Your task to perform on an android device: Go to sound settings Image 0: 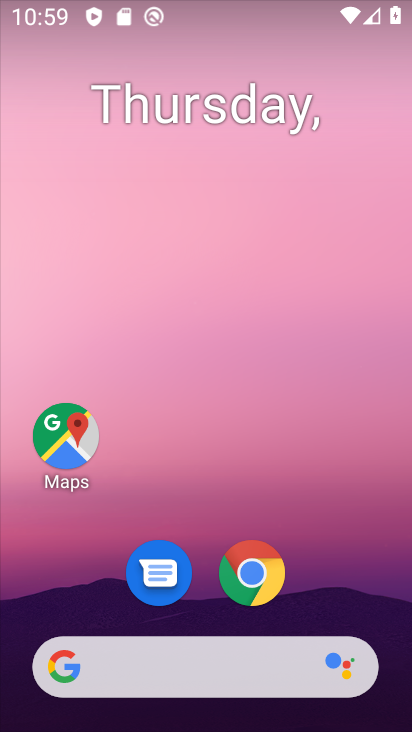
Step 0: drag from (215, 525) to (250, 131)
Your task to perform on an android device: Go to sound settings Image 1: 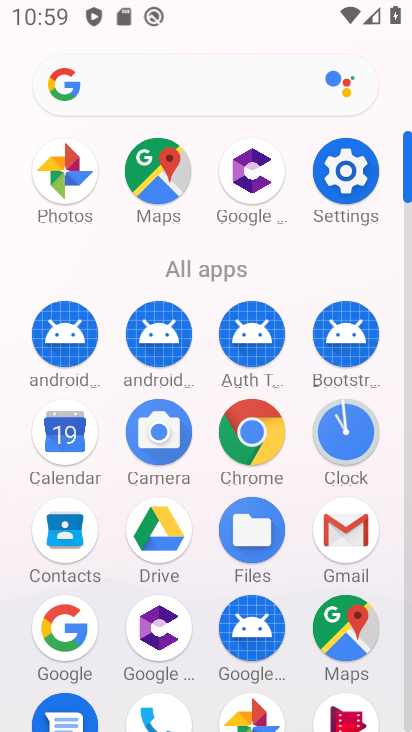
Step 1: click (335, 185)
Your task to perform on an android device: Go to sound settings Image 2: 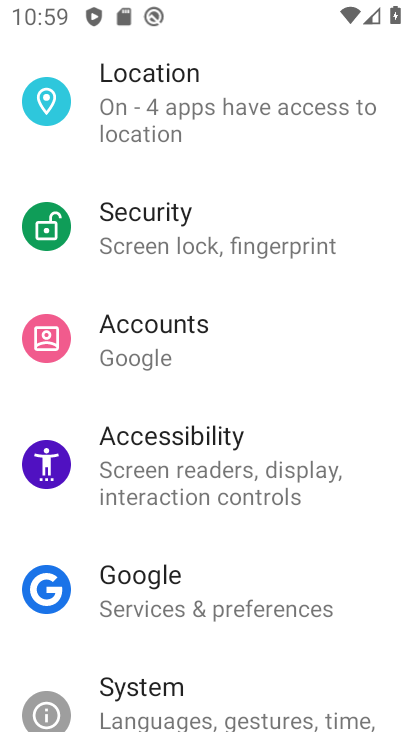
Step 2: drag from (164, 649) to (242, 230)
Your task to perform on an android device: Go to sound settings Image 3: 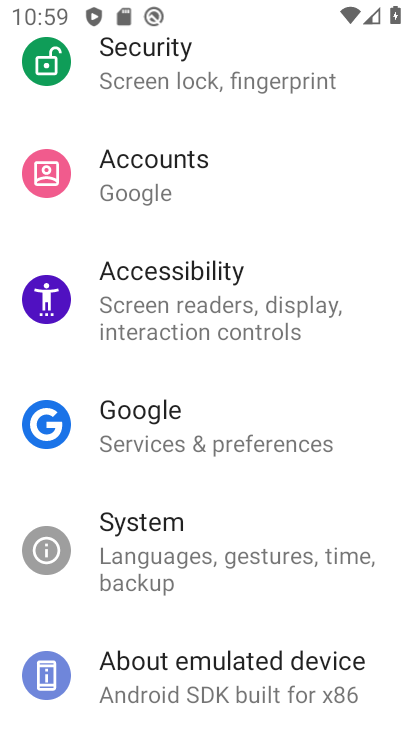
Step 3: click (245, 559)
Your task to perform on an android device: Go to sound settings Image 4: 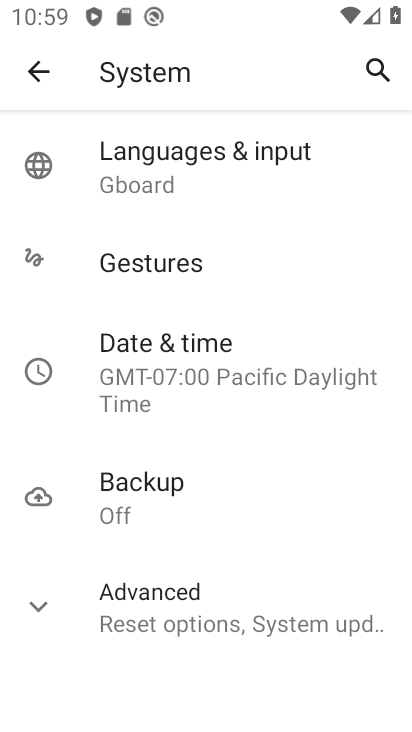
Step 4: click (47, 71)
Your task to perform on an android device: Go to sound settings Image 5: 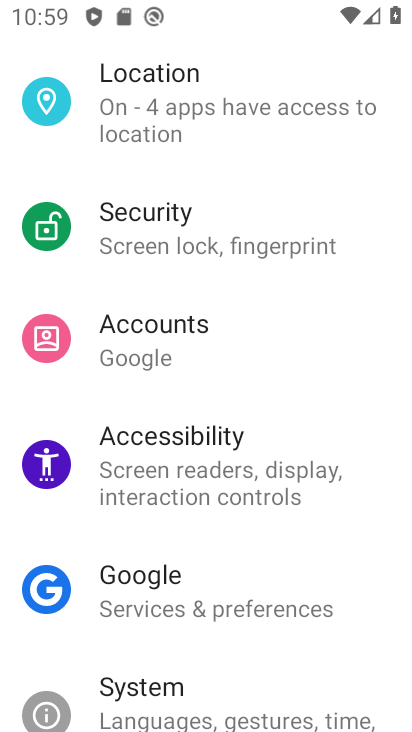
Step 5: drag from (197, 81) to (210, 603)
Your task to perform on an android device: Go to sound settings Image 6: 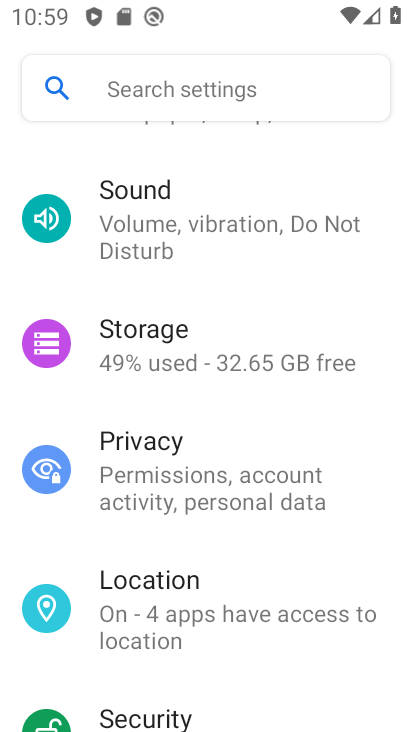
Step 6: click (192, 206)
Your task to perform on an android device: Go to sound settings Image 7: 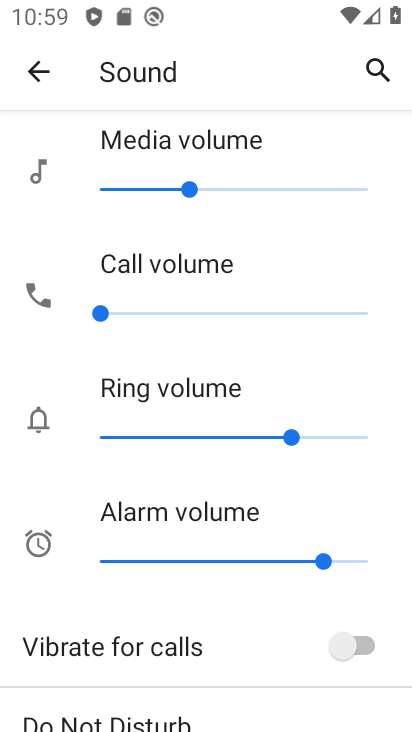
Step 7: drag from (158, 626) to (200, 281)
Your task to perform on an android device: Go to sound settings Image 8: 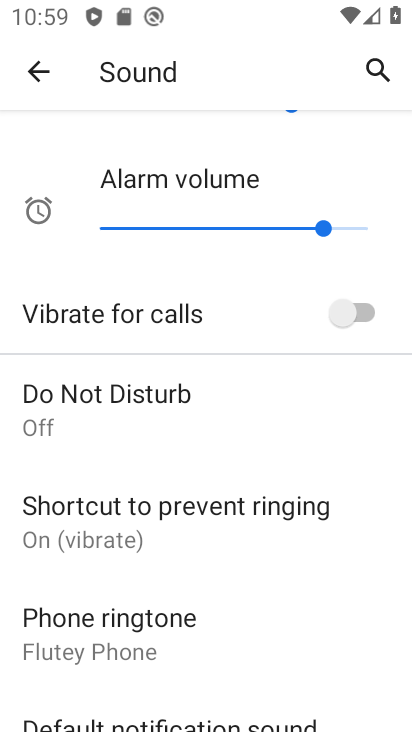
Step 8: drag from (198, 683) to (196, 295)
Your task to perform on an android device: Go to sound settings Image 9: 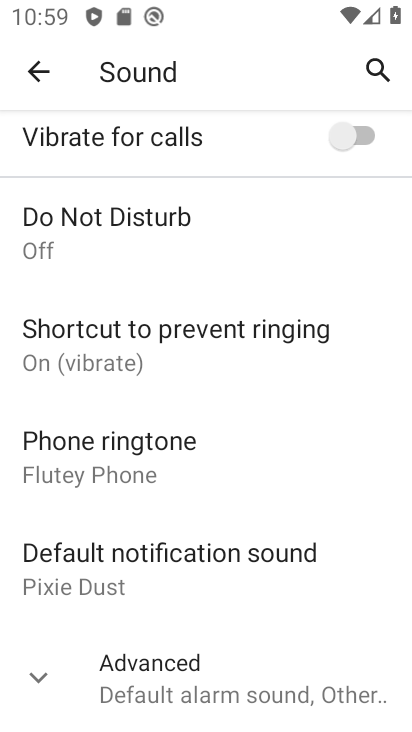
Step 9: click (131, 679)
Your task to perform on an android device: Go to sound settings Image 10: 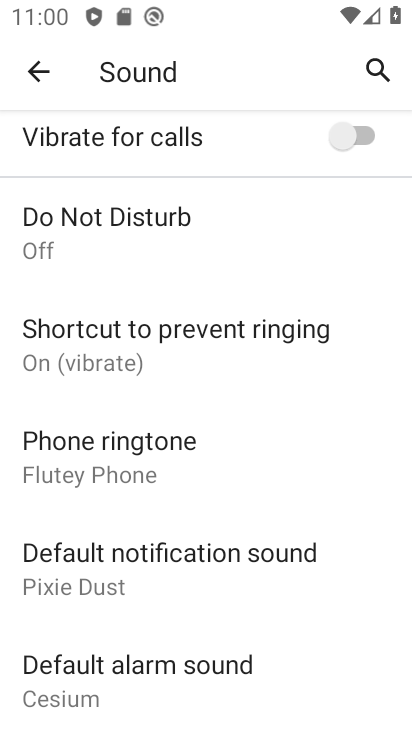
Step 10: task complete